Your task to perform on an android device: What's the weather going to be this weekend? Image 0: 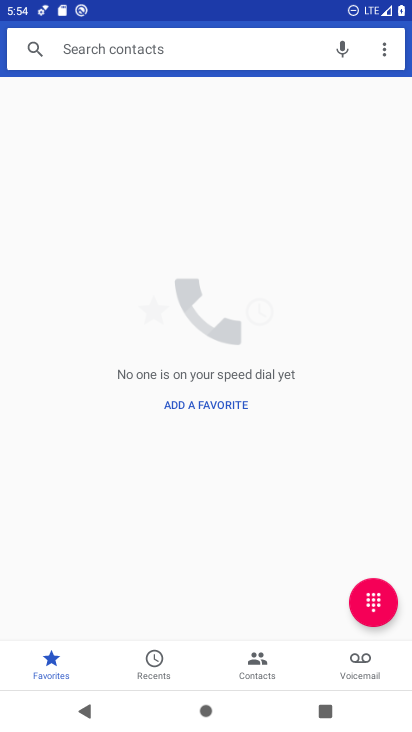
Step 0: press home button
Your task to perform on an android device: What's the weather going to be this weekend? Image 1: 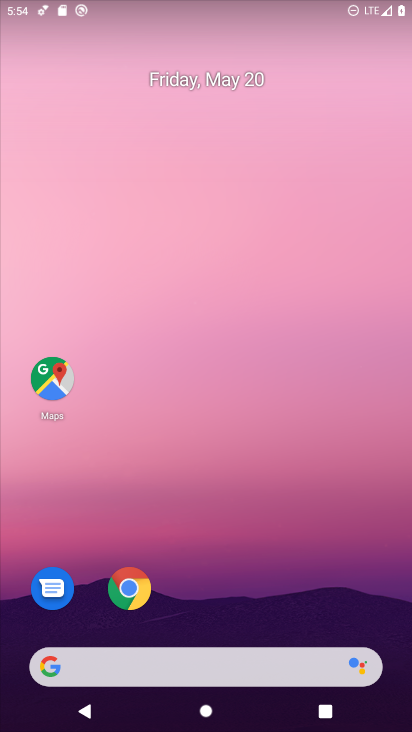
Step 1: click (186, 656)
Your task to perform on an android device: What's the weather going to be this weekend? Image 2: 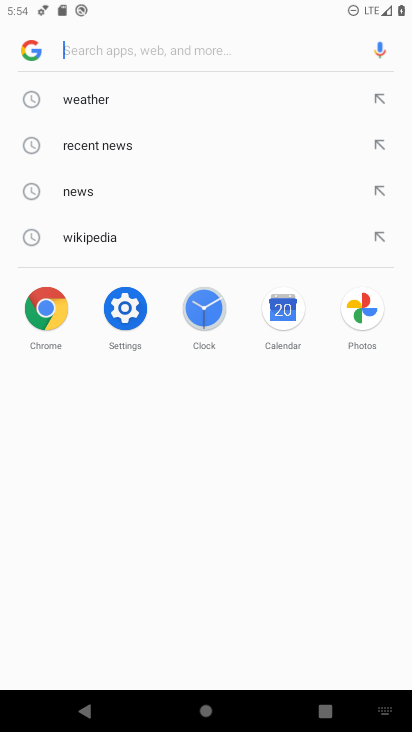
Step 2: click (87, 101)
Your task to perform on an android device: What's the weather going to be this weekend? Image 3: 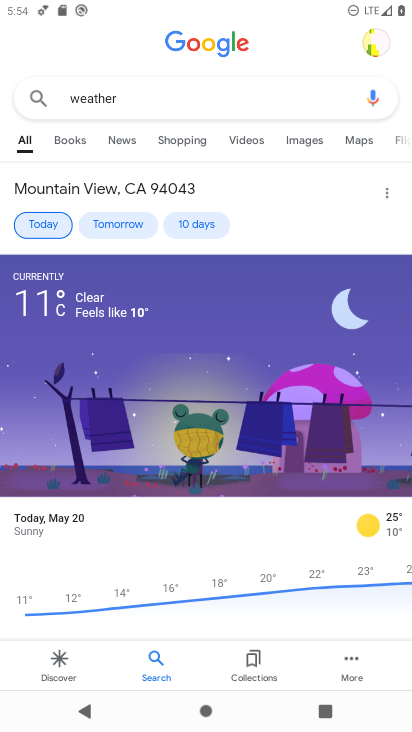
Step 3: click (209, 230)
Your task to perform on an android device: What's the weather going to be this weekend? Image 4: 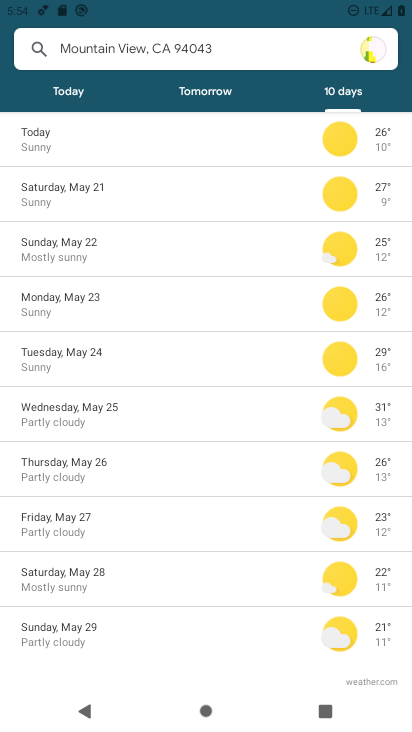
Step 4: task complete